Your task to perform on an android device: change the clock display to digital Image 0: 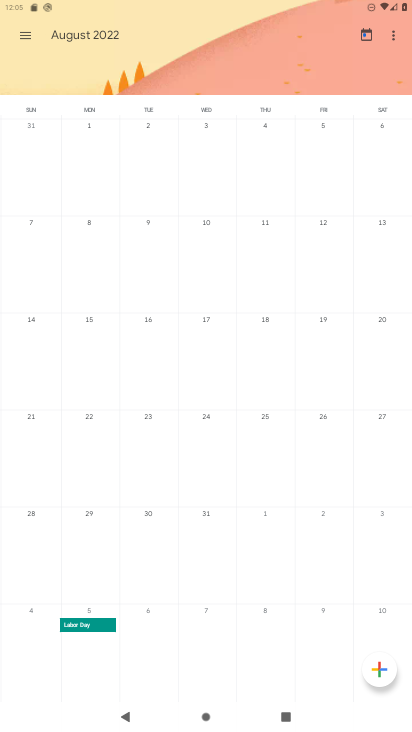
Step 0: press home button
Your task to perform on an android device: change the clock display to digital Image 1: 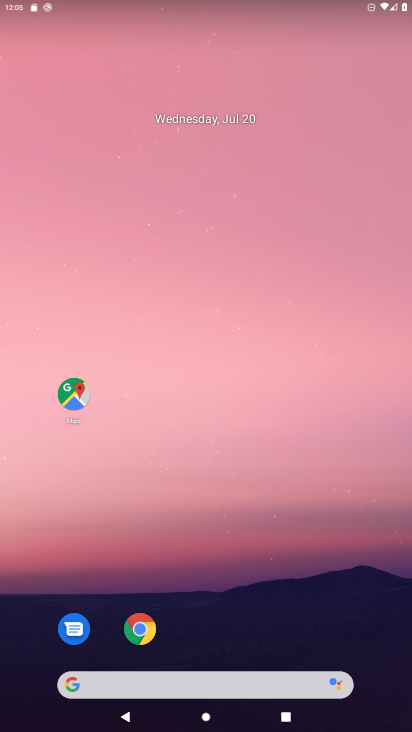
Step 1: drag from (199, 576) to (202, 357)
Your task to perform on an android device: change the clock display to digital Image 2: 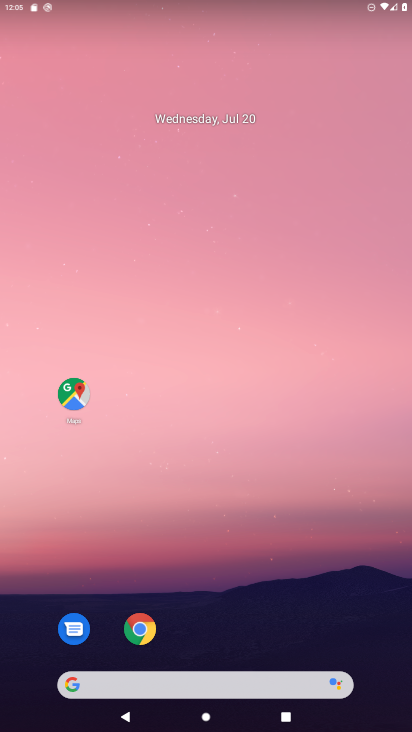
Step 2: drag from (195, 554) to (246, 38)
Your task to perform on an android device: change the clock display to digital Image 3: 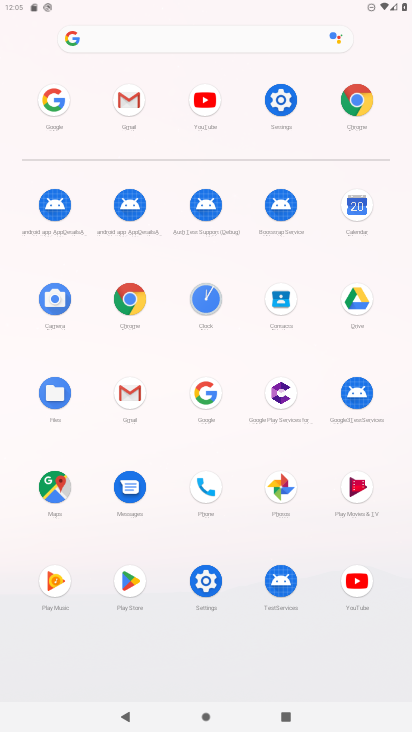
Step 3: click (279, 99)
Your task to perform on an android device: change the clock display to digital Image 4: 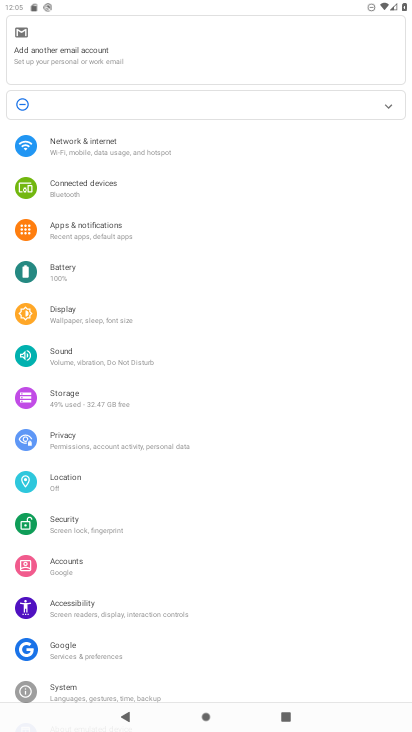
Step 4: press back button
Your task to perform on an android device: change the clock display to digital Image 5: 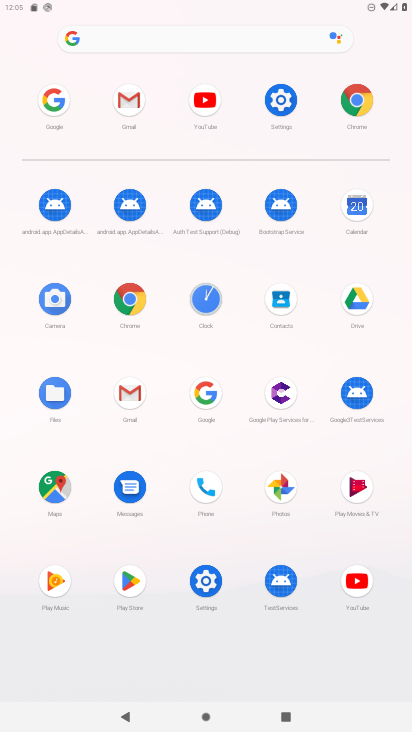
Step 5: click (202, 293)
Your task to perform on an android device: change the clock display to digital Image 6: 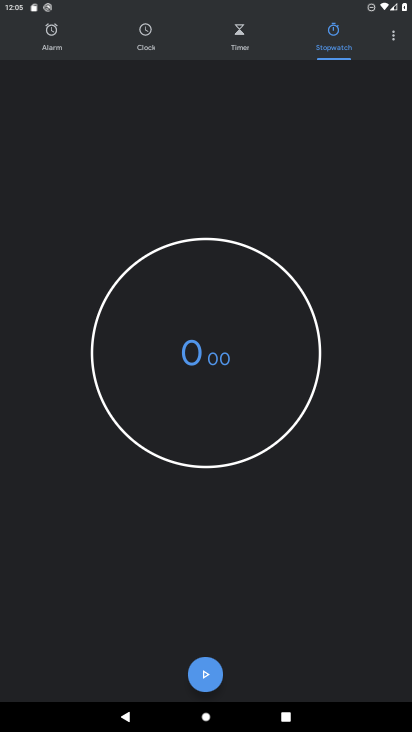
Step 6: click (394, 34)
Your task to perform on an android device: change the clock display to digital Image 7: 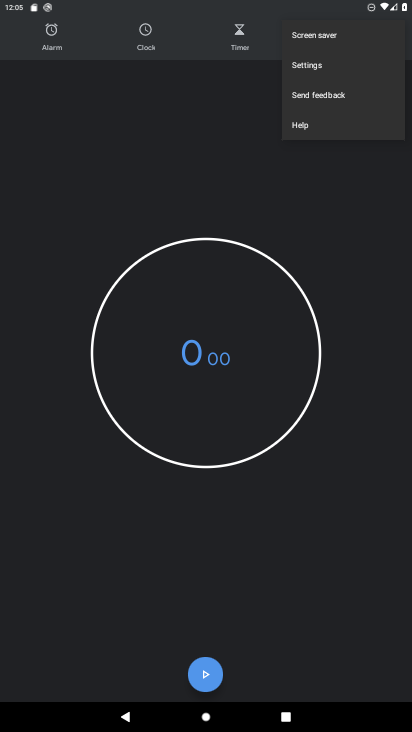
Step 7: click (312, 67)
Your task to perform on an android device: change the clock display to digital Image 8: 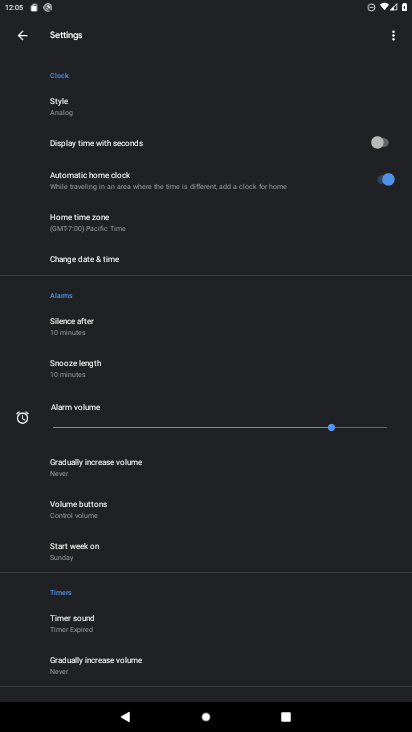
Step 8: click (65, 104)
Your task to perform on an android device: change the clock display to digital Image 9: 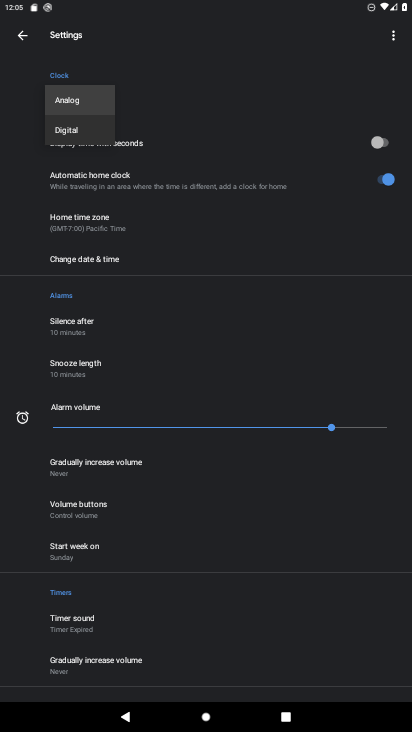
Step 9: click (72, 129)
Your task to perform on an android device: change the clock display to digital Image 10: 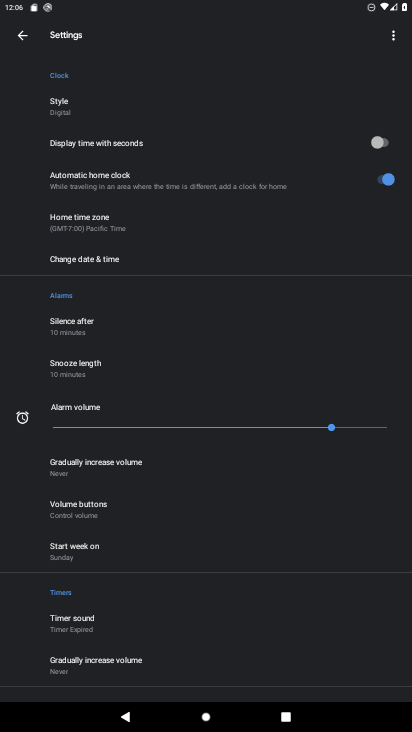
Step 10: task complete